Your task to perform on an android device: manage bookmarks in the chrome app Image 0: 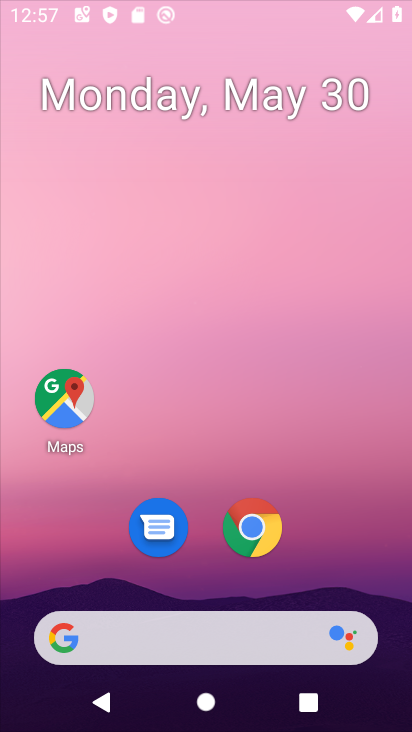
Step 0: drag from (229, 491) to (323, 102)
Your task to perform on an android device: manage bookmarks in the chrome app Image 1: 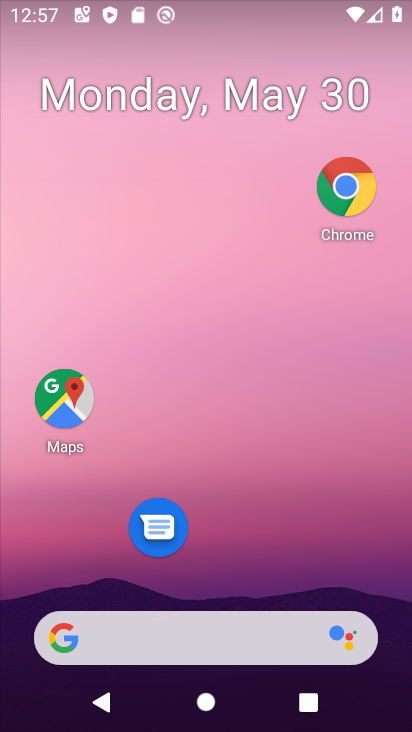
Step 1: drag from (220, 570) to (219, 130)
Your task to perform on an android device: manage bookmarks in the chrome app Image 2: 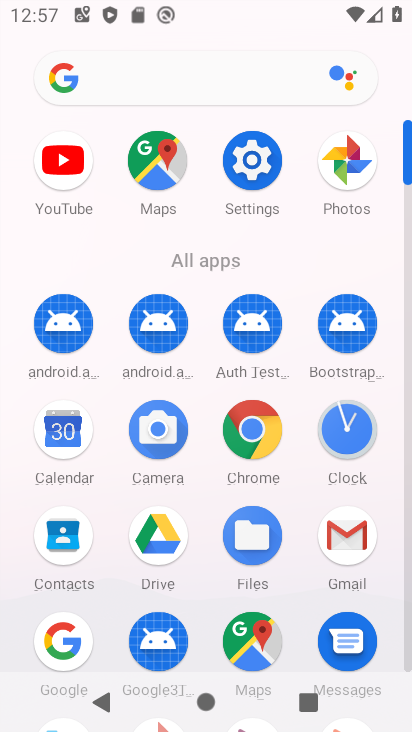
Step 2: click (249, 425)
Your task to perform on an android device: manage bookmarks in the chrome app Image 3: 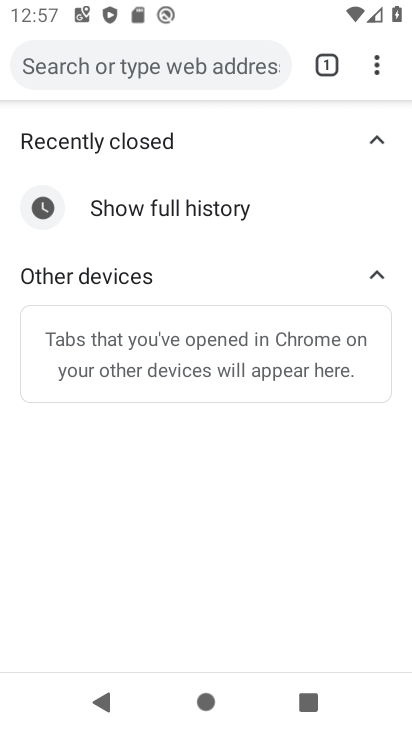
Step 3: task complete